Your task to perform on an android device: turn on javascript in the chrome app Image 0: 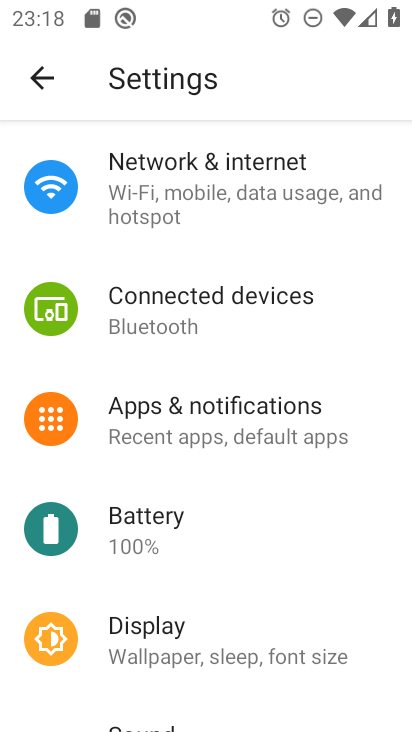
Step 0: press home button
Your task to perform on an android device: turn on javascript in the chrome app Image 1: 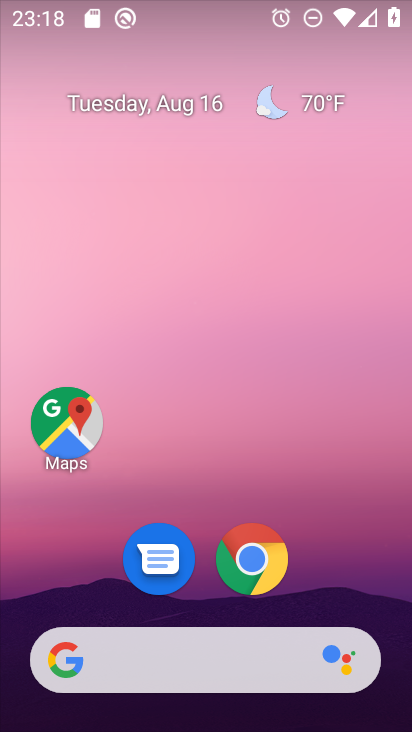
Step 1: click (249, 558)
Your task to perform on an android device: turn on javascript in the chrome app Image 2: 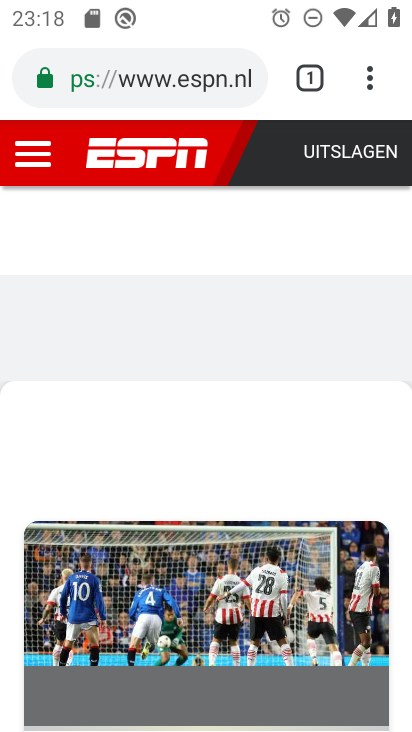
Step 2: click (386, 84)
Your task to perform on an android device: turn on javascript in the chrome app Image 3: 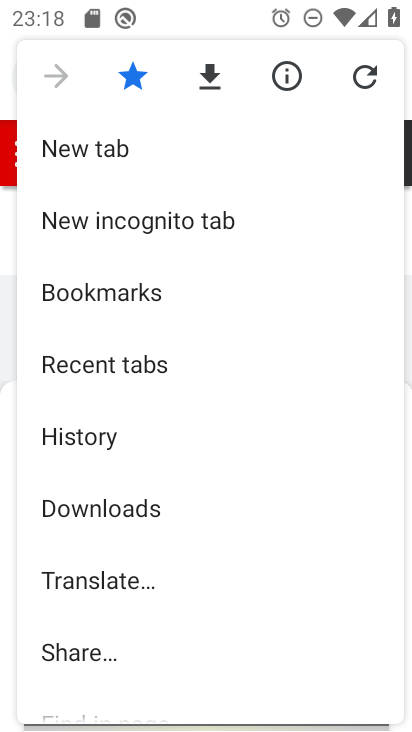
Step 3: drag from (137, 518) to (170, 453)
Your task to perform on an android device: turn on javascript in the chrome app Image 4: 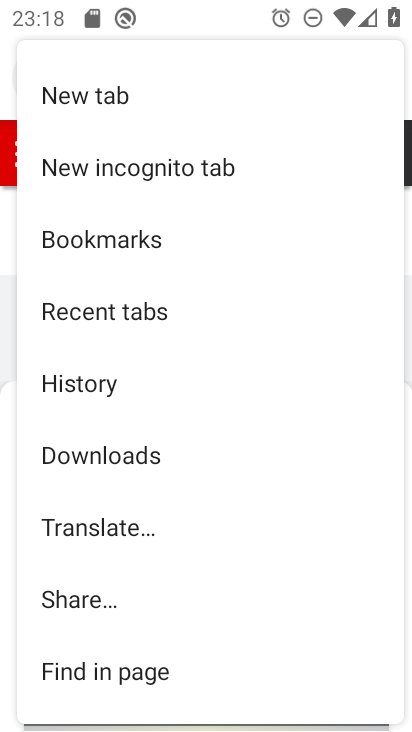
Step 4: drag from (112, 562) to (161, 499)
Your task to perform on an android device: turn on javascript in the chrome app Image 5: 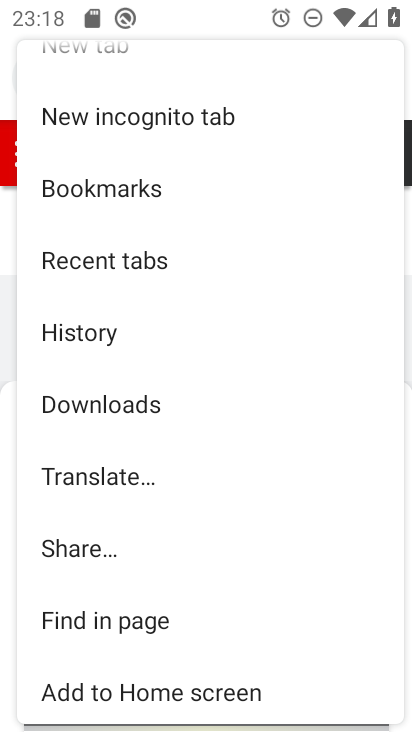
Step 5: drag from (86, 578) to (148, 497)
Your task to perform on an android device: turn on javascript in the chrome app Image 6: 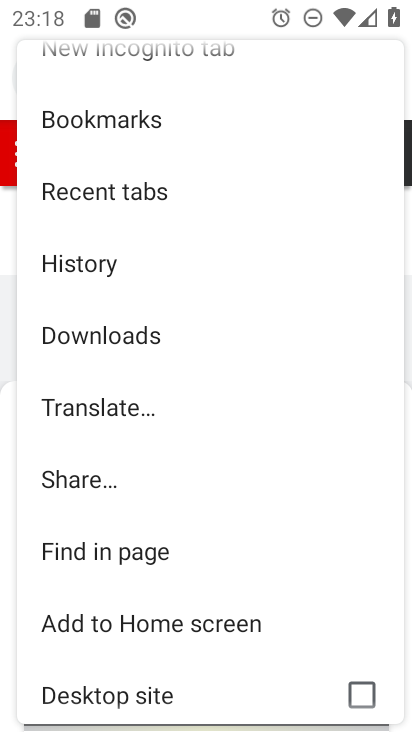
Step 6: drag from (93, 583) to (158, 481)
Your task to perform on an android device: turn on javascript in the chrome app Image 7: 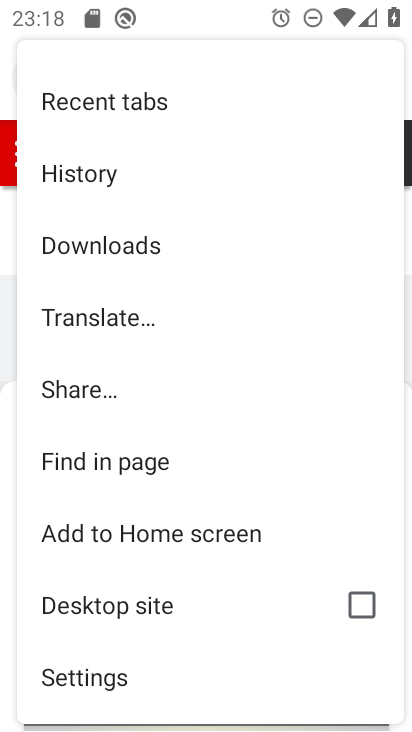
Step 7: drag from (110, 555) to (165, 469)
Your task to perform on an android device: turn on javascript in the chrome app Image 8: 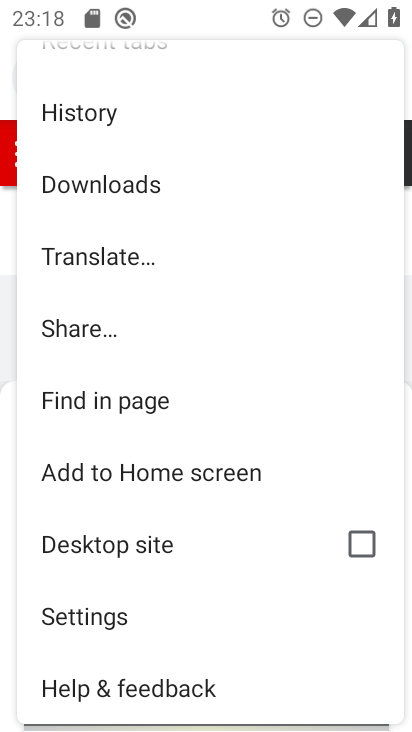
Step 8: click (103, 621)
Your task to perform on an android device: turn on javascript in the chrome app Image 9: 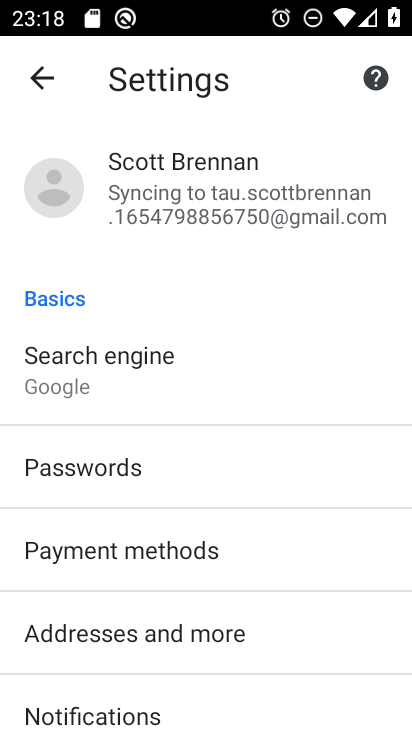
Step 9: drag from (119, 579) to (179, 493)
Your task to perform on an android device: turn on javascript in the chrome app Image 10: 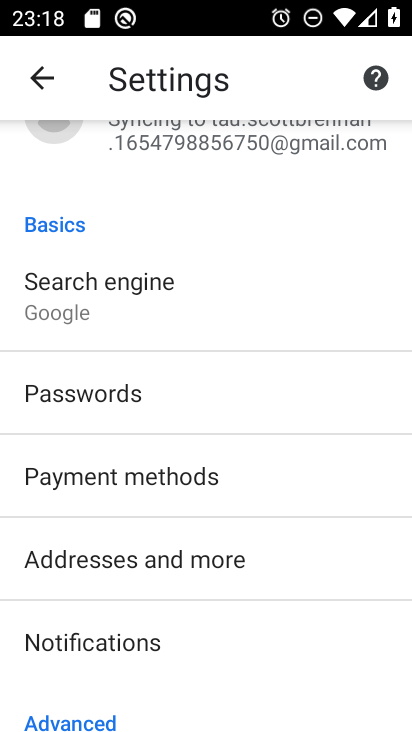
Step 10: drag from (131, 603) to (195, 510)
Your task to perform on an android device: turn on javascript in the chrome app Image 11: 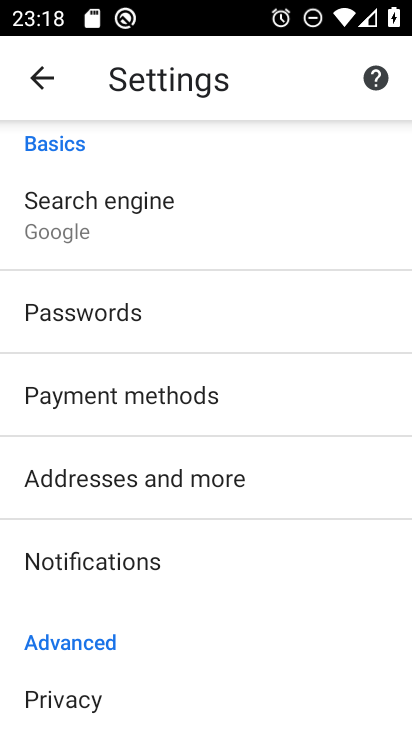
Step 11: drag from (146, 633) to (217, 517)
Your task to perform on an android device: turn on javascript in the chrome app Image 12: 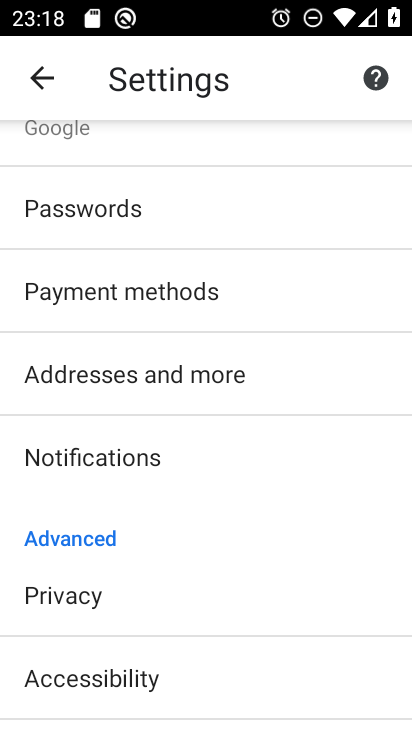
Step 12: drag from (142, 649) to (241, 526)
Your task to perform on an android device: turn on javascript in the chrome app Image 13: 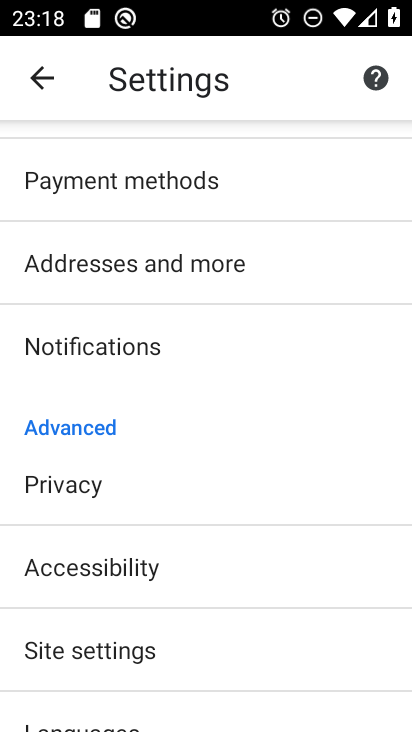
Step 13: click (141, 646)
Your task to perform on an android device: turn on javascript in the chrome app Image 14: 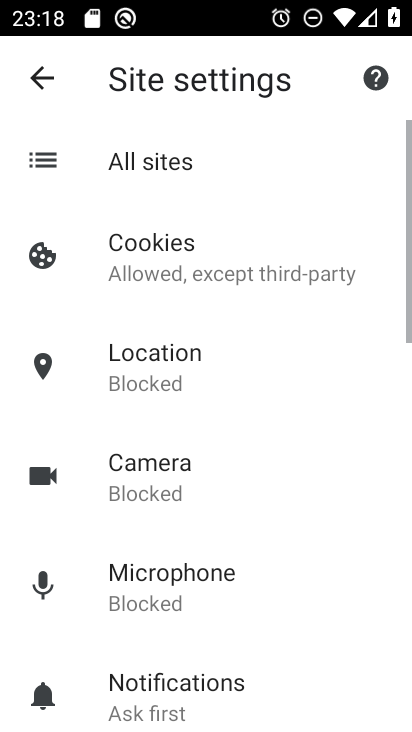
Step 14: drag from (141, 646) to (183, 516)
Your task to perform on an android device: turn on javascript in the chrome app Image 15: 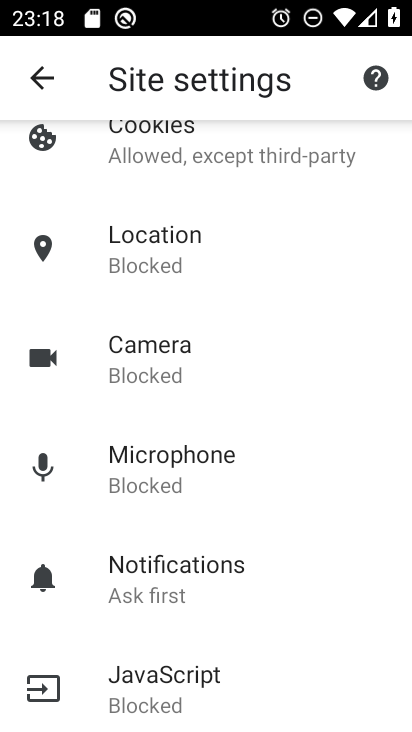
Step 15: drag from (160, 644) to (220, 554)
Your task to perform on an android device: turn on javascript in the chrome app Image 16: 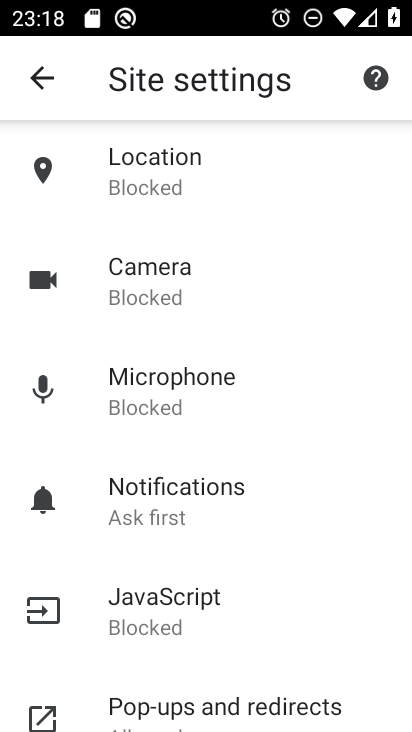
Step 16: click (184, 596)
Your task to perform on an android device: turn on javascript in the chrome app Image 17: 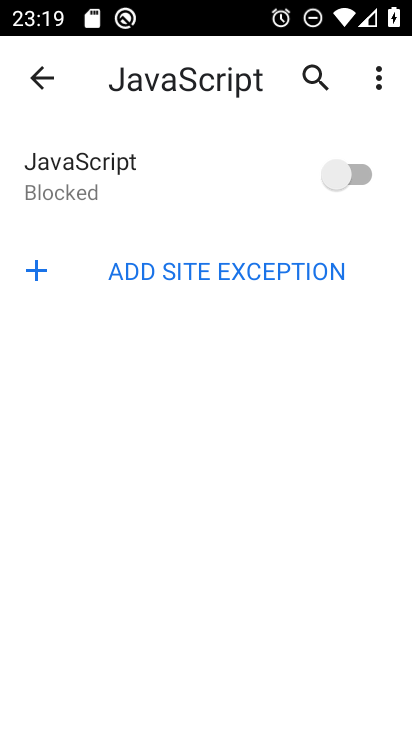
Step 17: click (344, 174)
Your task to perform on an android device: turn on javascript in the chrome app Image 18: 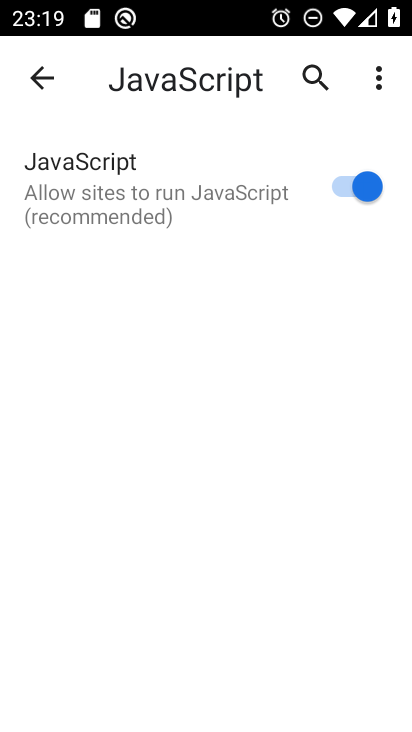
Step 18: task complete